Your task to perform on an android device: What's the weather going to be this weekend? Image 0: 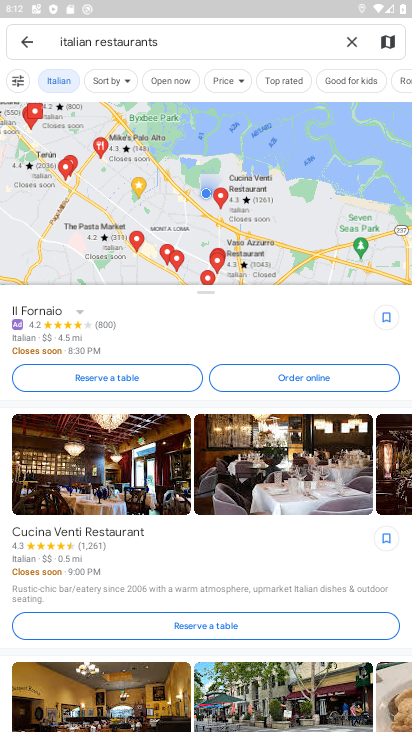
Step 0: press home button
Your task to perform on an android device: What's the weather going to be this weekend? Image 1: 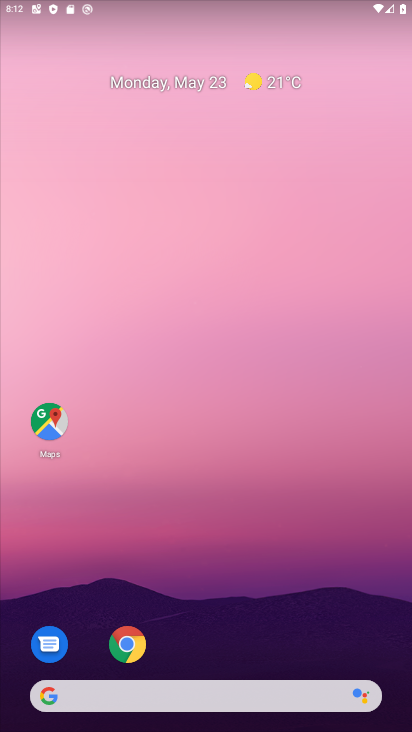
Step 1: drag from (184, 717) to (159, 26)
Your task to perform on an android device: What's the weather going to be this weekend? Image 2: 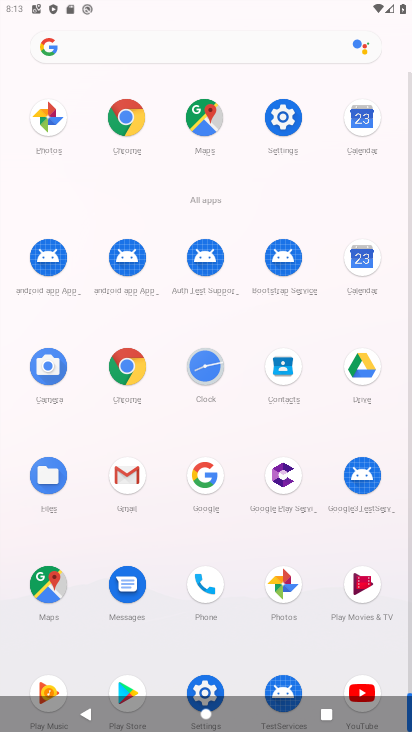
Step 2: click (359, 122)
Your task to perform on an android device: What's the weather going to be this weekend? Image 3: 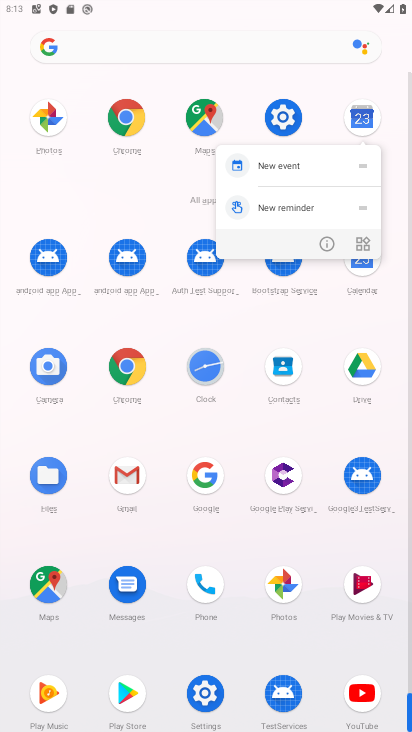
Step 3: click (354, 117)
Your task to perform on an android device: What's the weather going to be this weekend? Image 4: 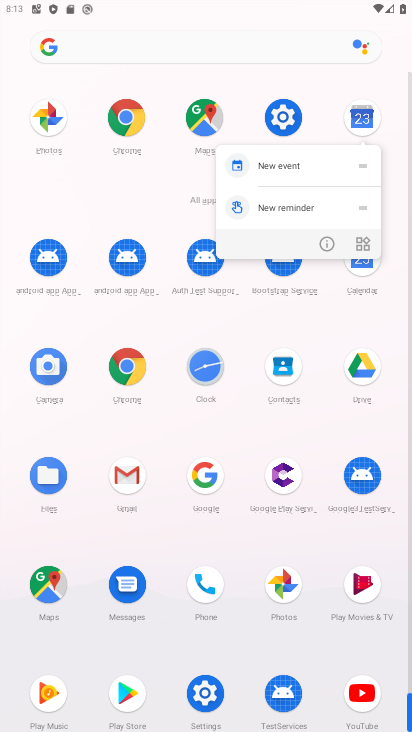
Step 4: click (354, 117)
Your task to perform on an android device: What's the weather going to be this weekend? Image 5: 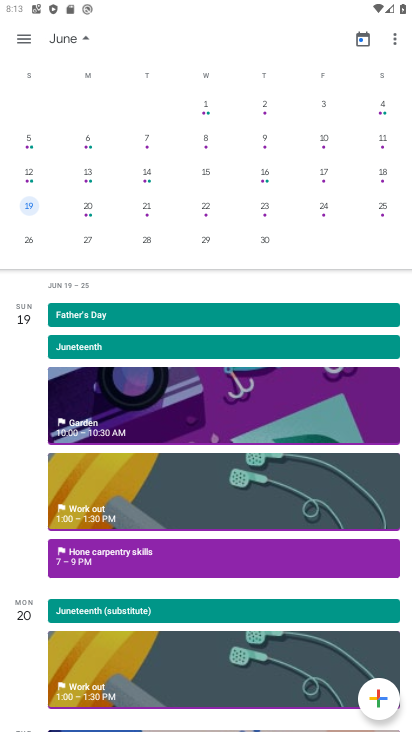
Step 5: press home button
Your task to perform on an android device: What's the weather going to be this weekend? Image 6: 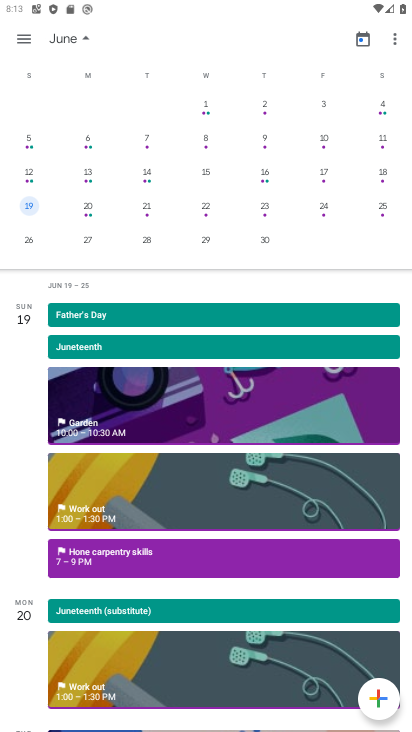
Step 6: press home button
Your task to perform on an android device: What's the weather going to be this weekend? Image 7: 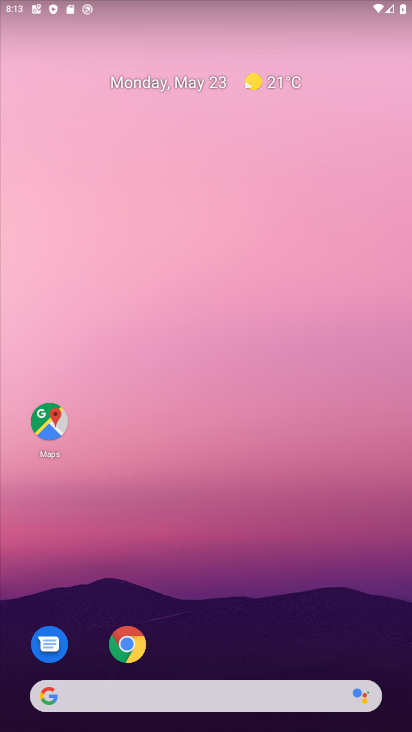
Step 7: click (168, 702)
Your task to perform on an android device: What's the weather going to be this weekend? Image 8: 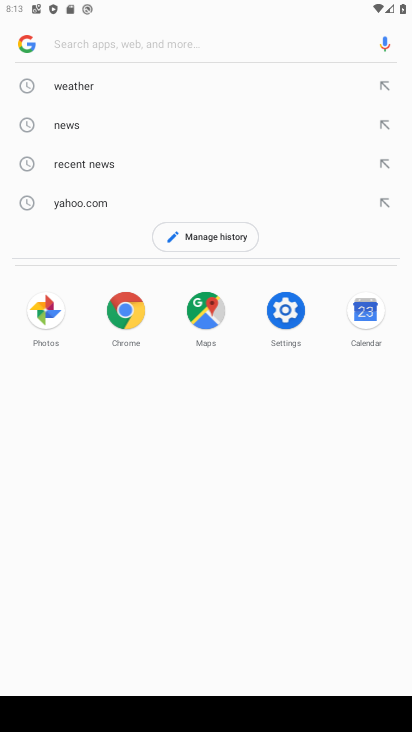
Step 8: type "What's the weather going to be this weekend?"
Your task to perform on an android device: What's the weather going to be this weekend? Image 9: 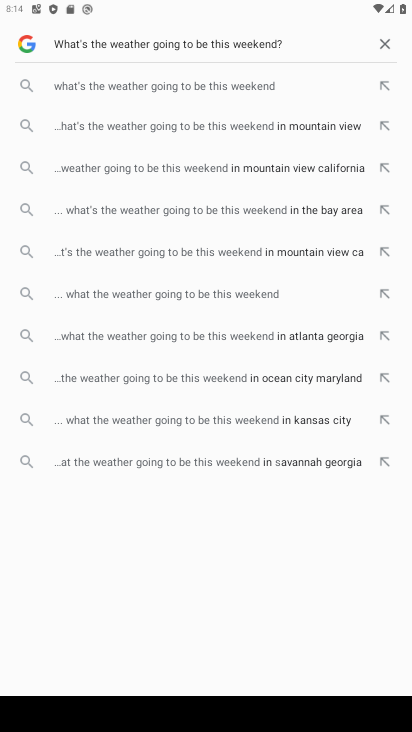
Step 9: click (223, 77)
Your task to perform on an android device: What's the weather going to be this weekend? Image 10: 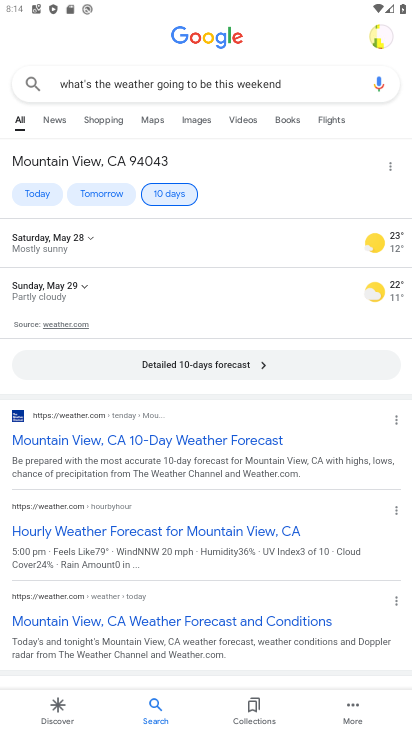
Step 10: task complete